Your task to perform on an android device: turn on javascript in the chrome app Image 0: 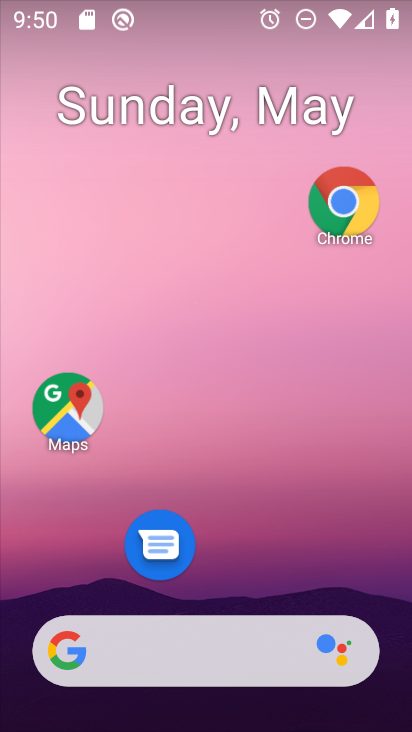
Step 0: click (346, 205)
Your task to perform on an android device: turn on javascript in the chrome app Image 1: 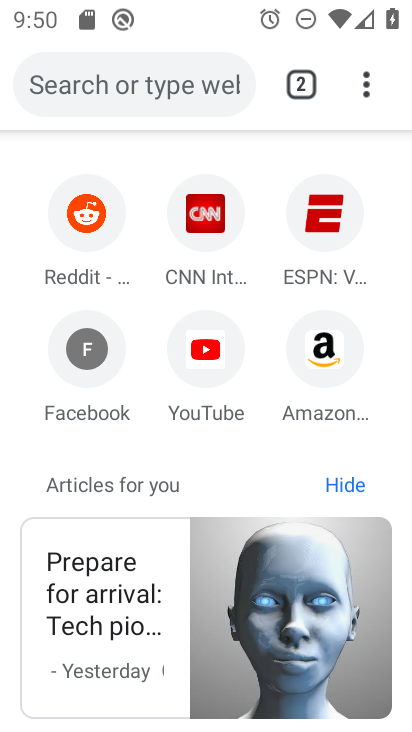
Step 1: click (363, 85)
Your task to perform on an android device: turn on javascript in the chrome app Image 2: 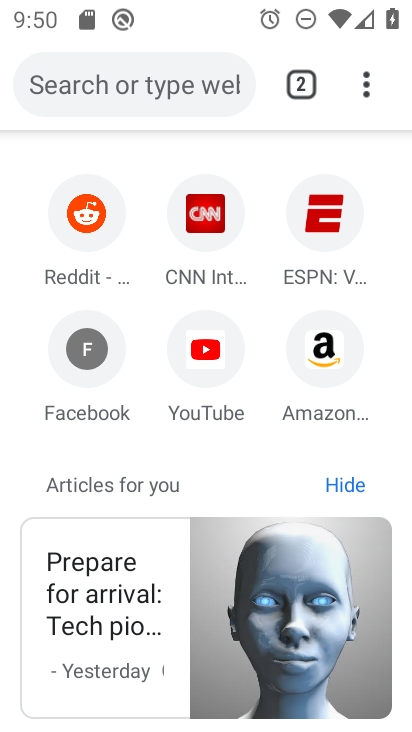
Step 2: click (364, 86)
Your task to perform on an android device: turn on javascript in the chrome app Image 3: 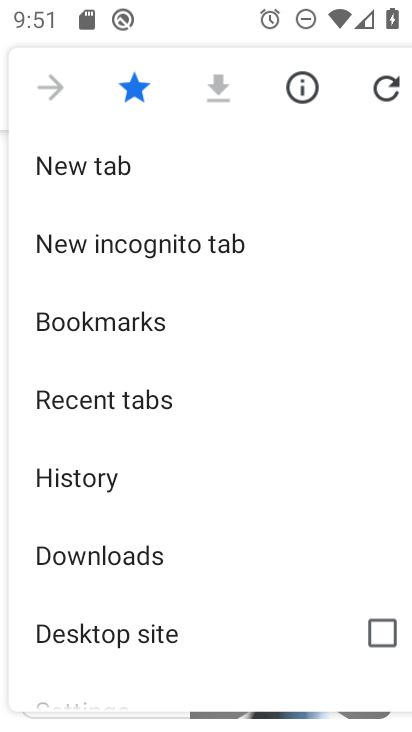
Step 3: drag from (153, 573) to (191, 283)
Your task to perform on an android device: turn on javascript in the chrome app Image 4: 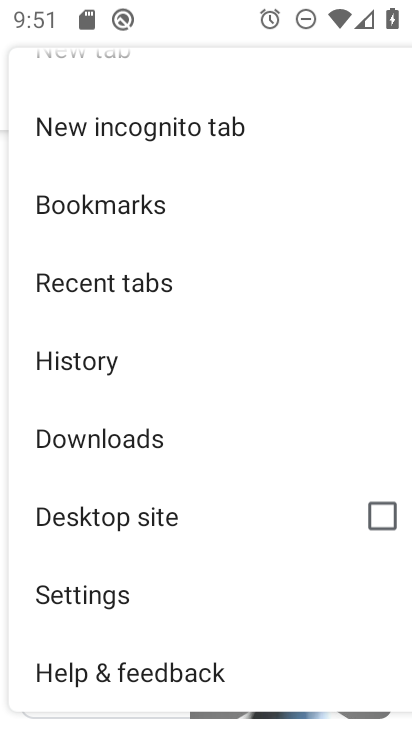
Step 4: click (133, 589)
Your task to perform on an android device: turn on javascript in the chrome app Image 5: 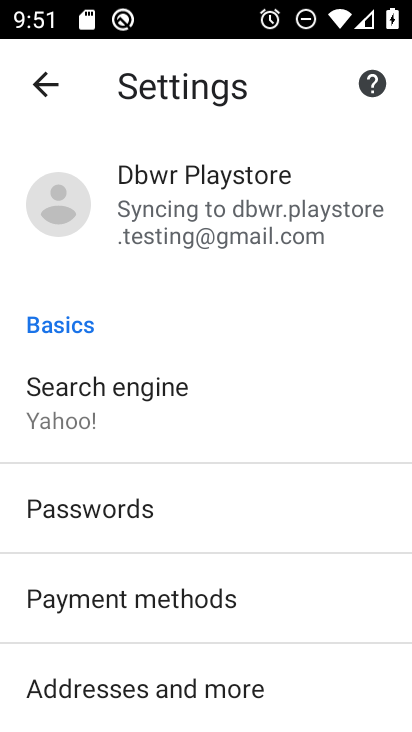
Step 5: drag from (195, 637) to (227, 304)
Your task to perform on an android device: turn on javascript in the chrome app Image 6: 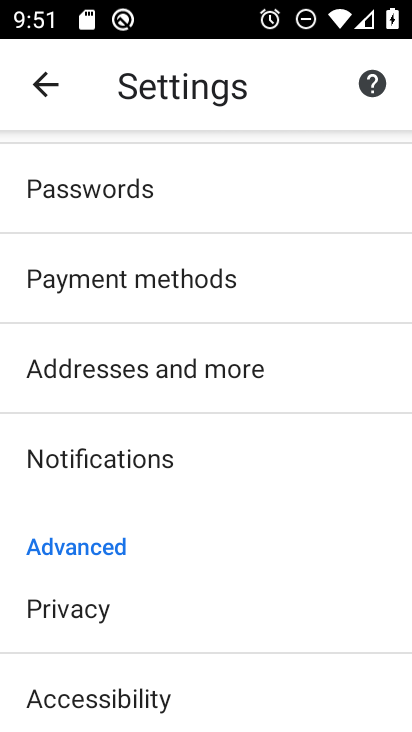
Step 6: drag from (233, 663) to (173, 440)
Your task to perform on an android device: turn on javascript in the chrome app Image 7: 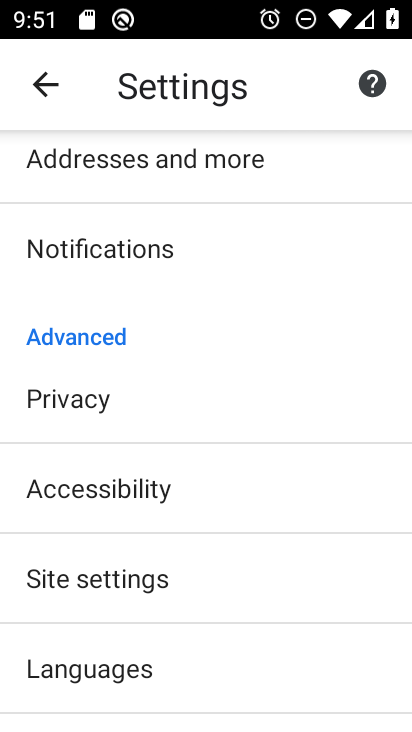
Step 7: click (158, 579)
Your task to perform on an android device: turn on javascript in the chrome app Image 8: 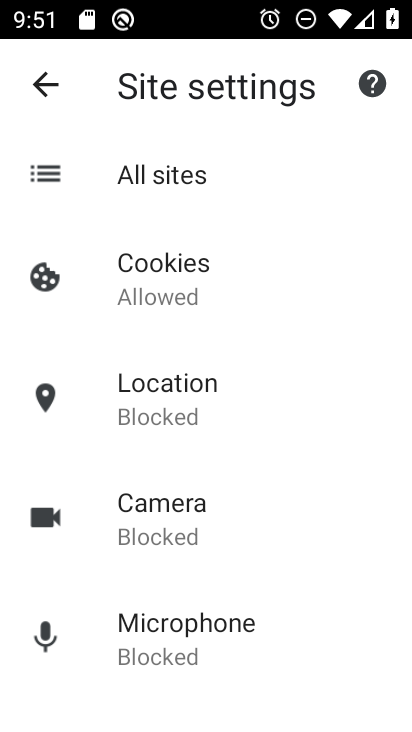
Step 8: drag from (163, 646) to (115, 392)
Your task to perform on an android device: turn on javascript in the chrome app Image 9: 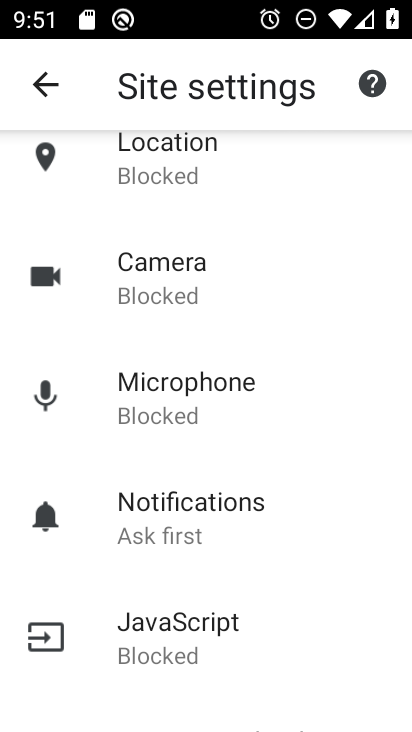
Step 9: click (176, 648)
Your task to perform on an android device: turn on javascript in the chrome app Image 10: 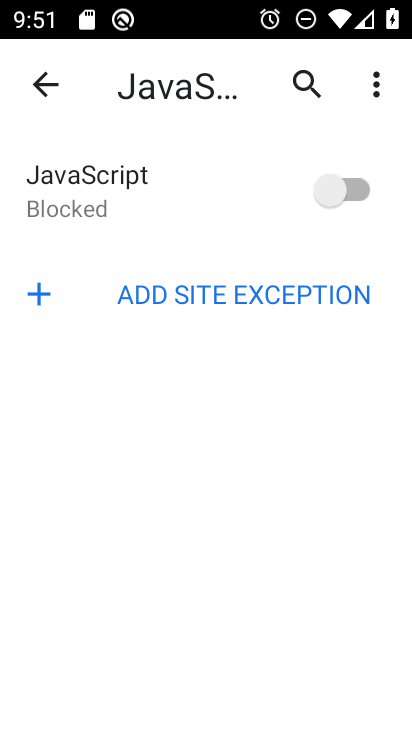
Step 10: click (349, 186)
Your task to perform on an android device: turn on javascript in the chrome app Image 11: 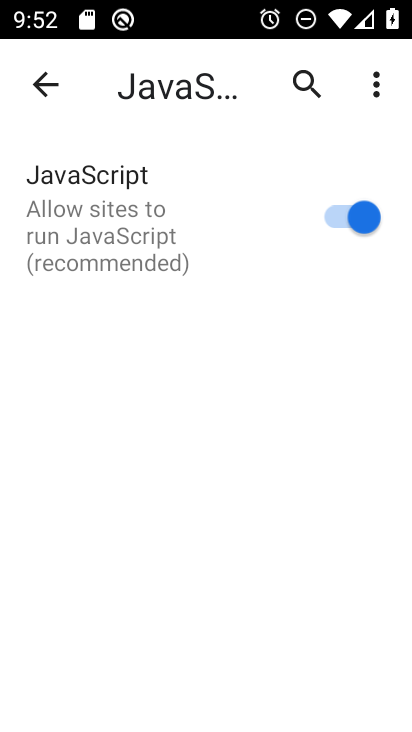
Step 11: task complete